Your task to perform on an android device: turn off improve location accuracy Image 0: 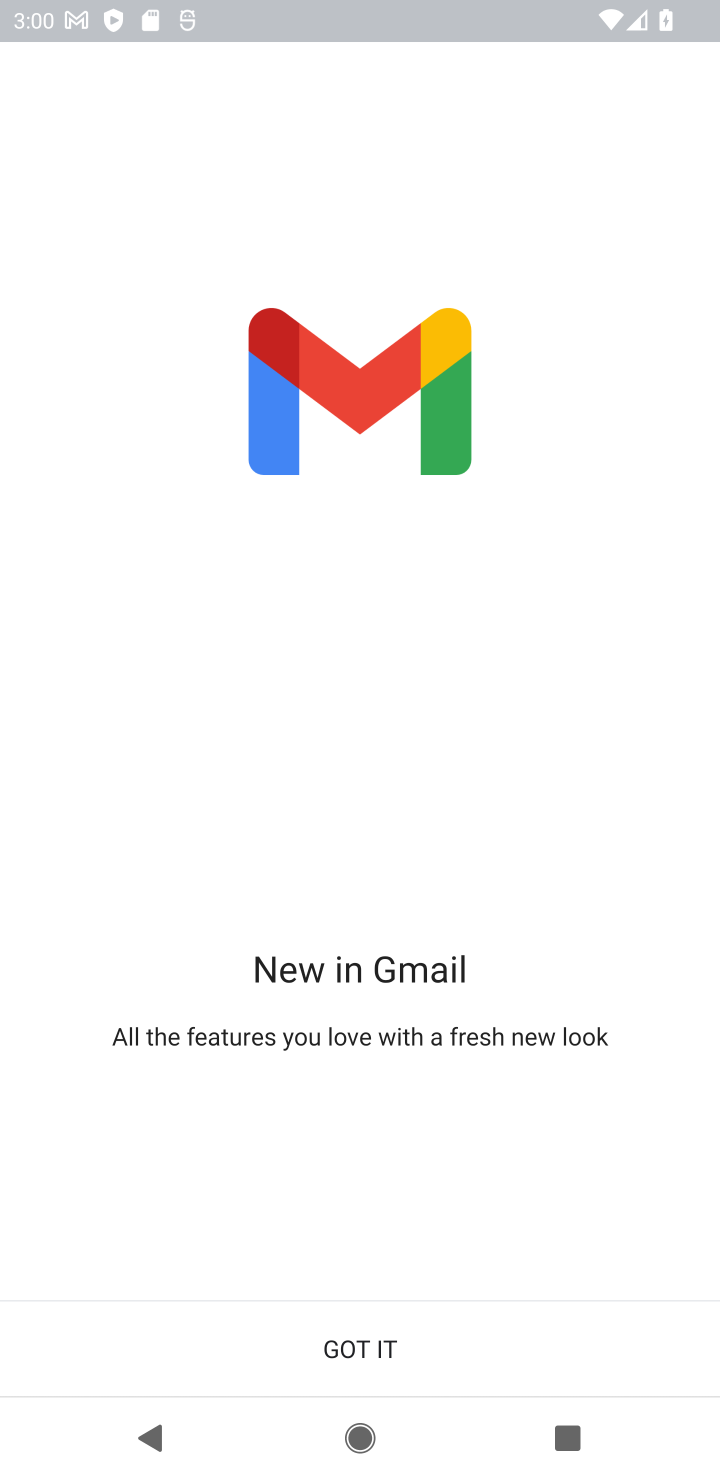
Step 0: press home button
Your task to perform on an android device: turn off improve location accuracy Image 1: 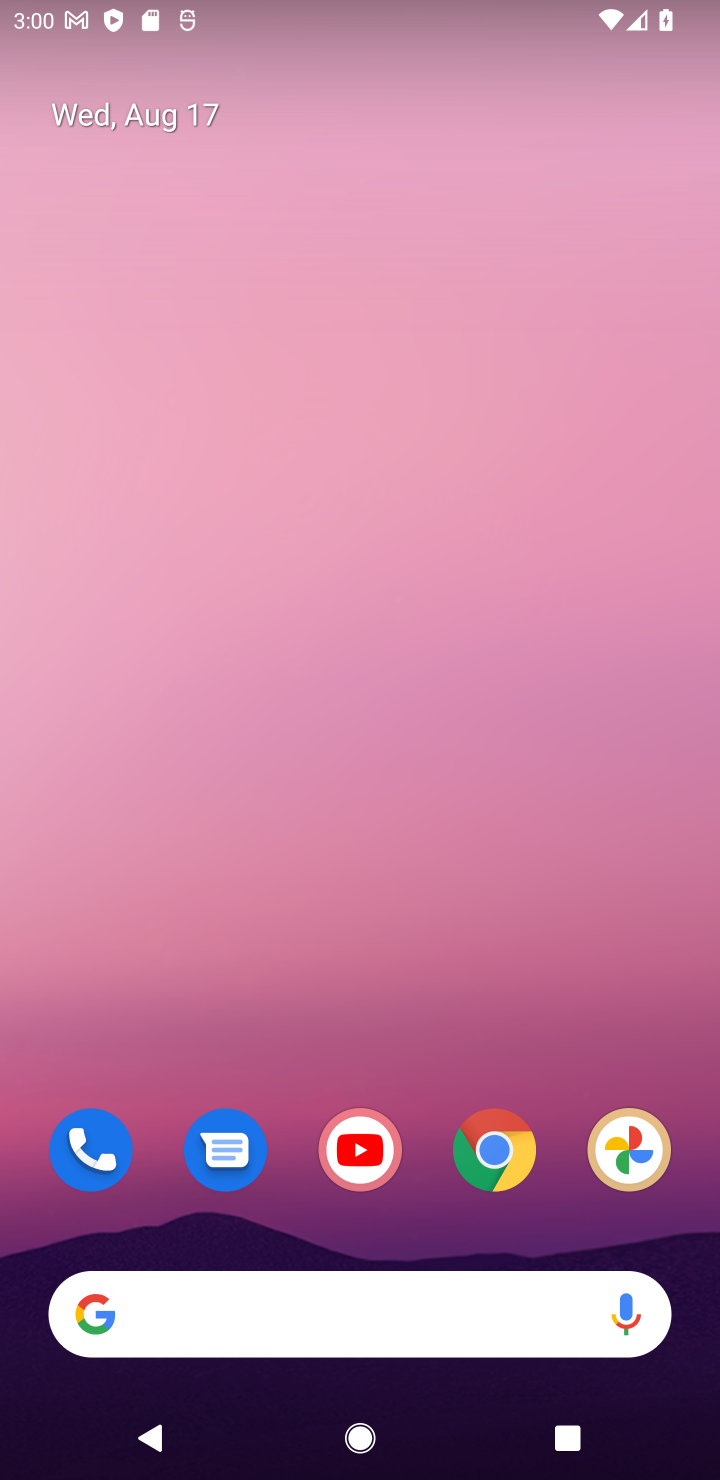
Step 1: drag from (553, 1189) to (377, 80)
Your task to perform on an android device: turn off improve location accuracy Image 2: 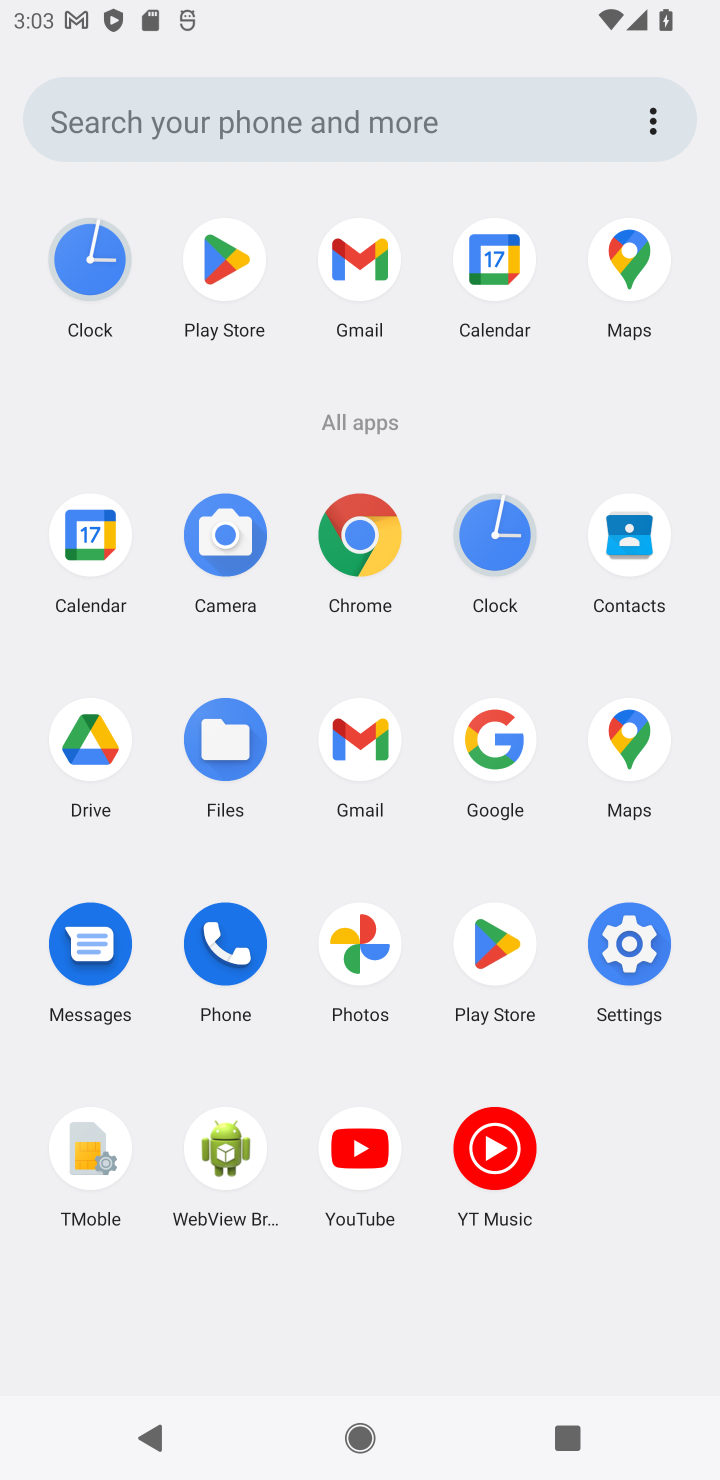
Step 2: click (615, 964)
Your task to perform on an android device: turn off improve location accuracy Image 3: 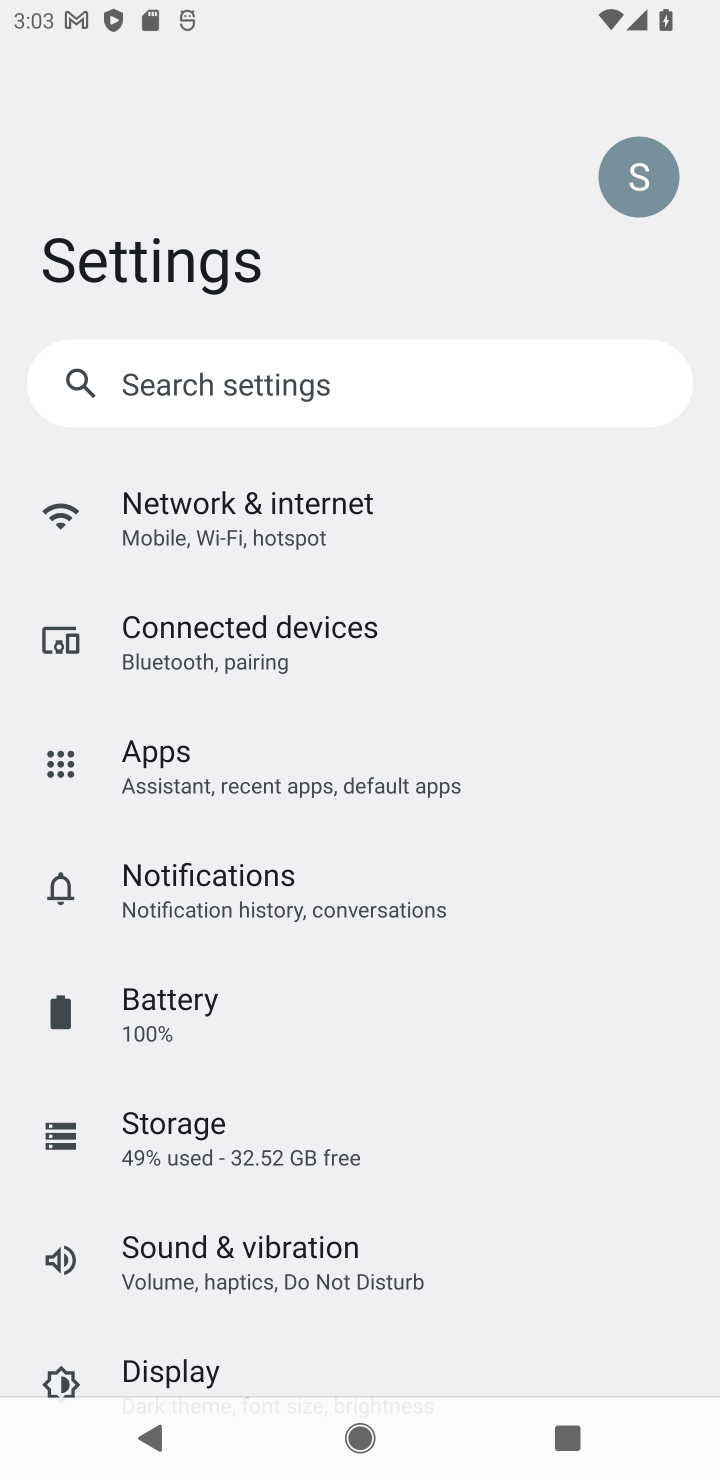
Step 3: drag from (236, 1301) to (227, 280)
Your task to perform on an android device: turn off improve location accuracy Image 4: 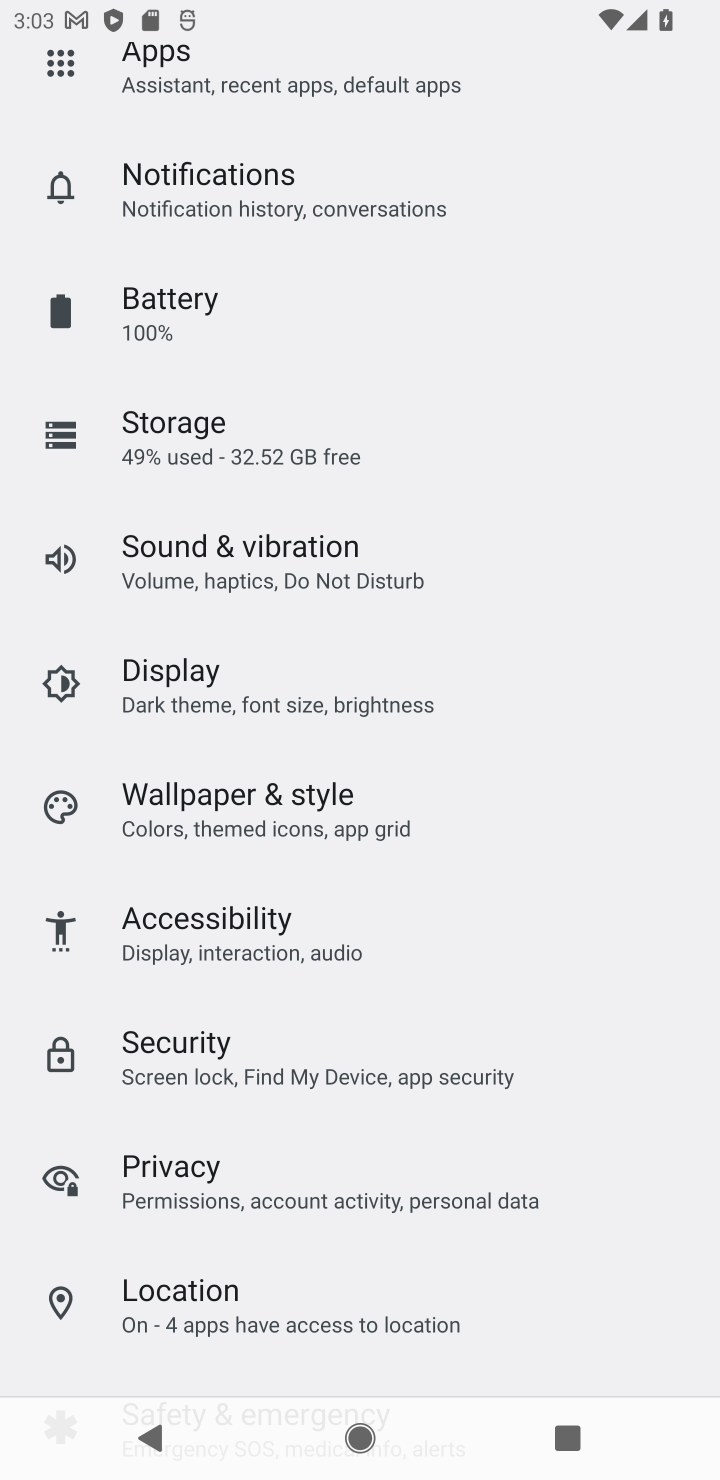
Step 4: click (218, 1295)
Your task to perform on an android device: turn off improve location accuracy Image 5: 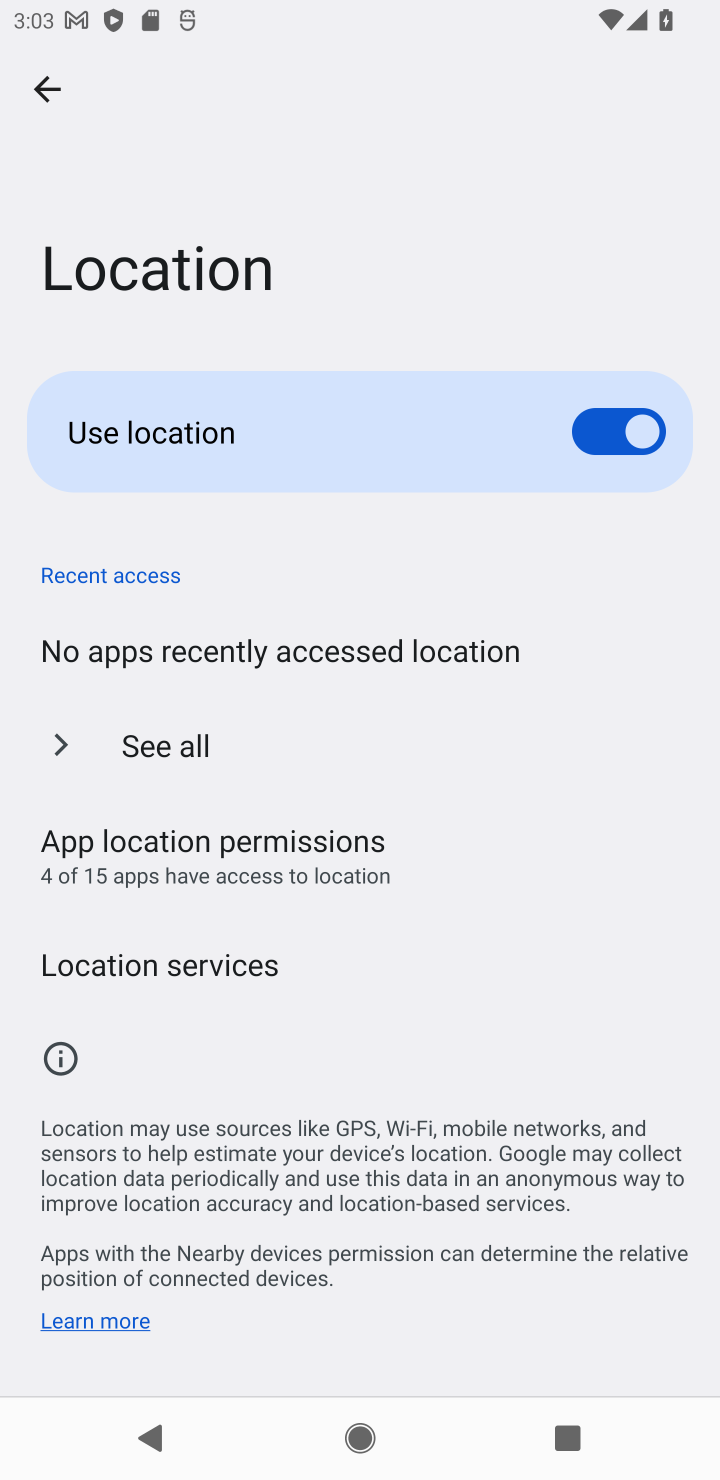
Step 5: click (84, 961)
Your task to perform on an android device: turn off improve location accuracy Image 6: 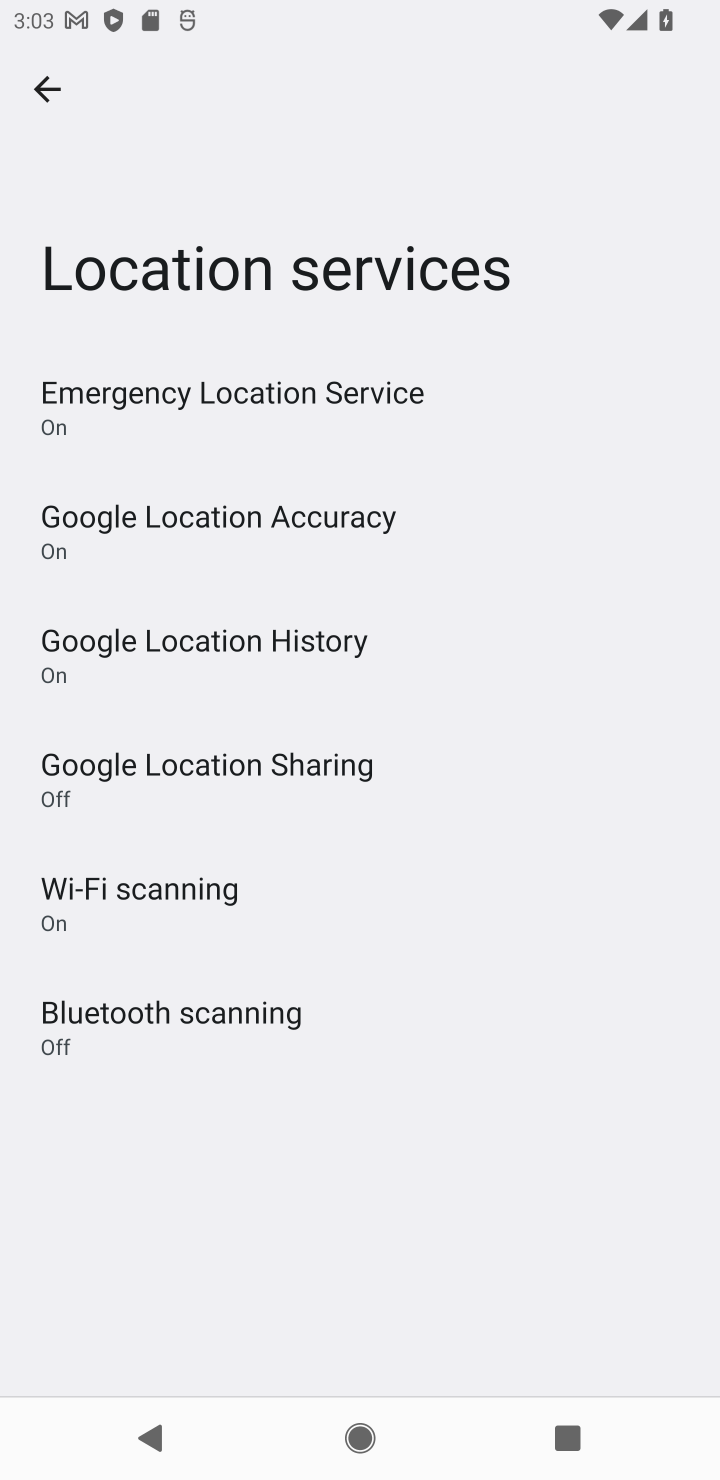
Step 6: click (264, 511)
Your task to perform on an android device: turn off improve location accuracy Image 7: 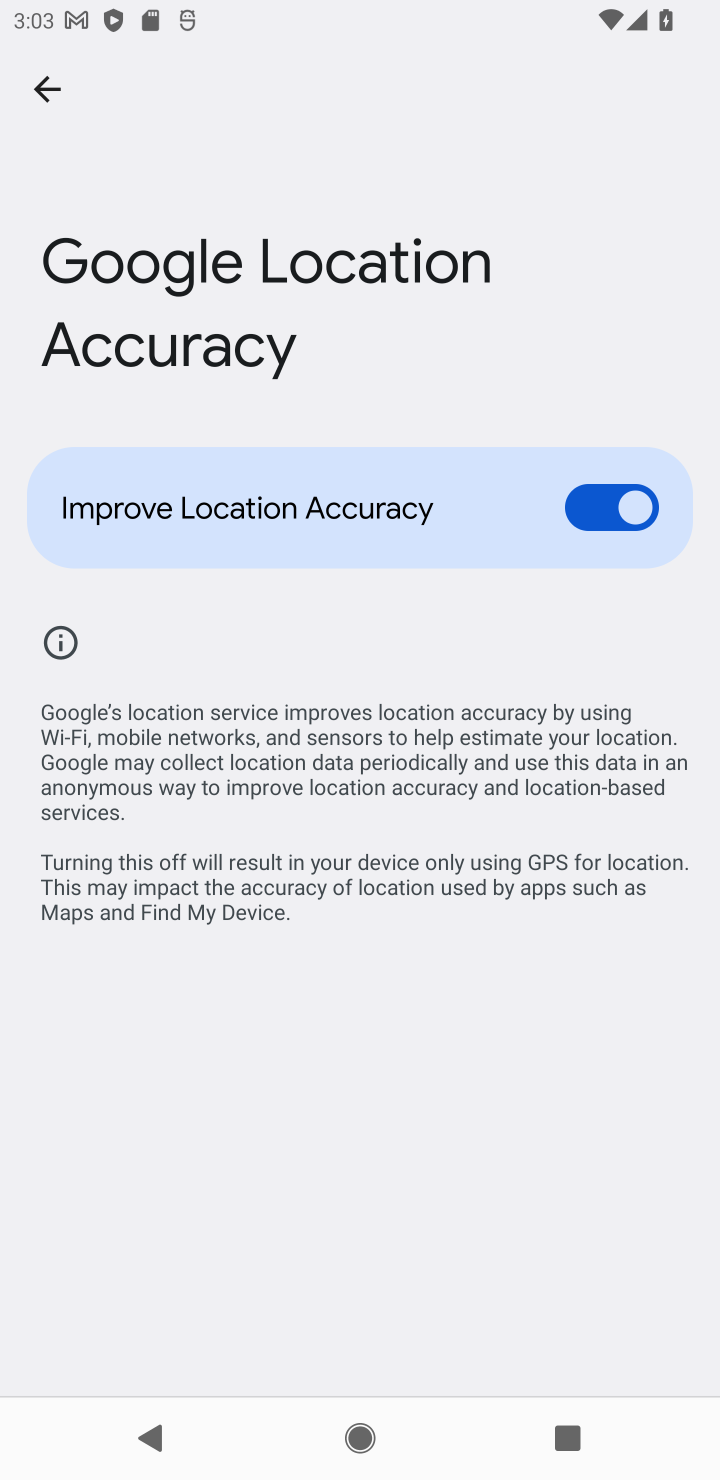
Step 7: click (570, 498)
Your task to perform on an android device: turn off improve location accuracy Image 8: 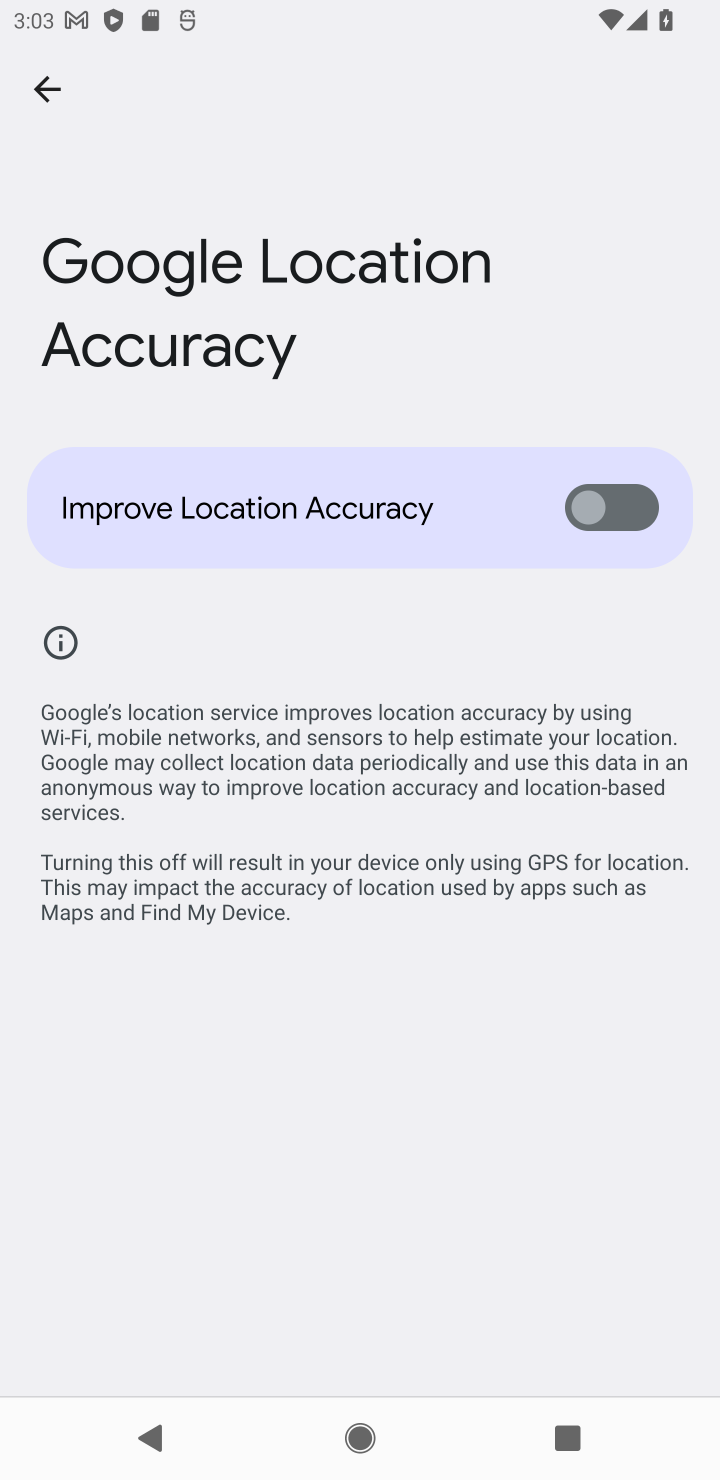
Step 8: task complete